Your task to perform on an android device: Go to Wikipedia Image 0: 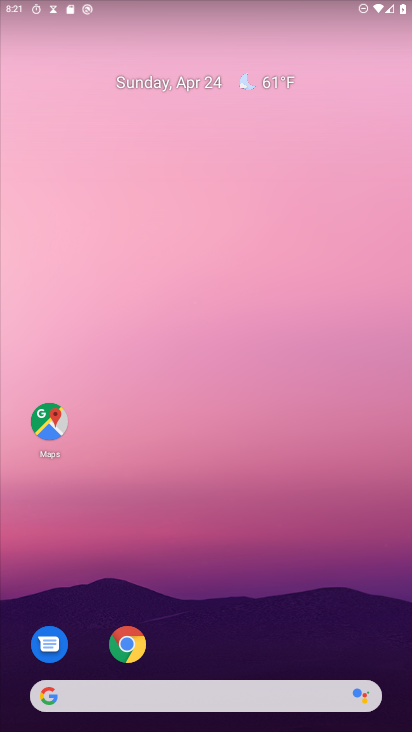
Step 0: drag from (245, 689) to (257, 282)
Your task to perform on an android device: Go to Wikipedia Image 1: 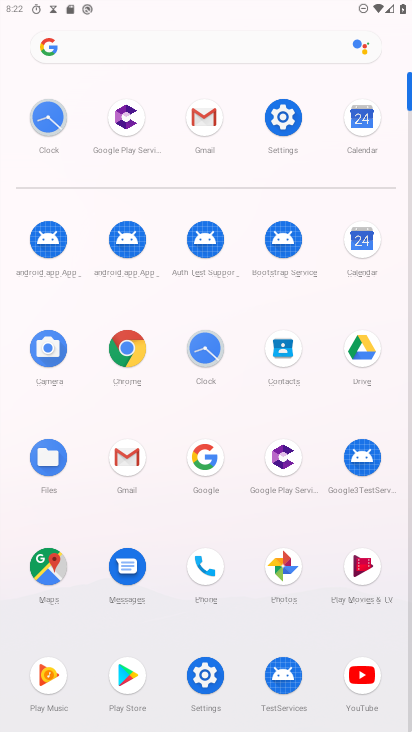
Step 1: click (129, 355)
Your task to perform on an android device: Go to Wikipedia Image 2: 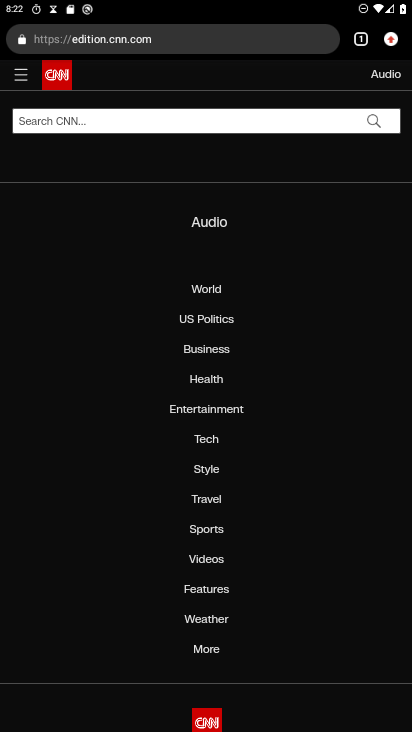
Step 2: click (211, 46)
Your task to perform on an android device: Go to Wikipedia Image 3: 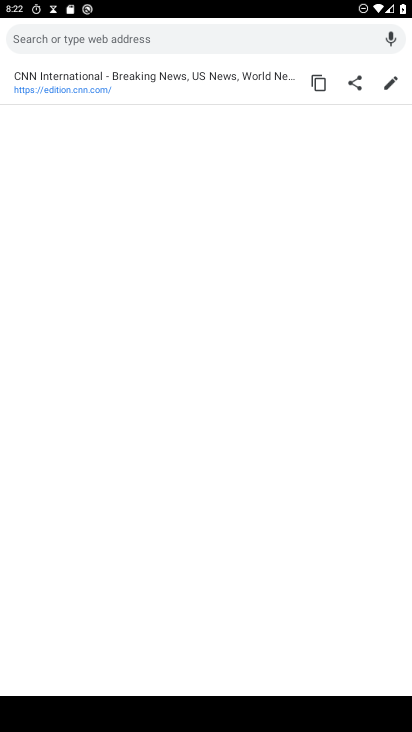
Step 3: type "wikipedia"
Your task to perform on an android device: Go to Wikipedia Image 4: 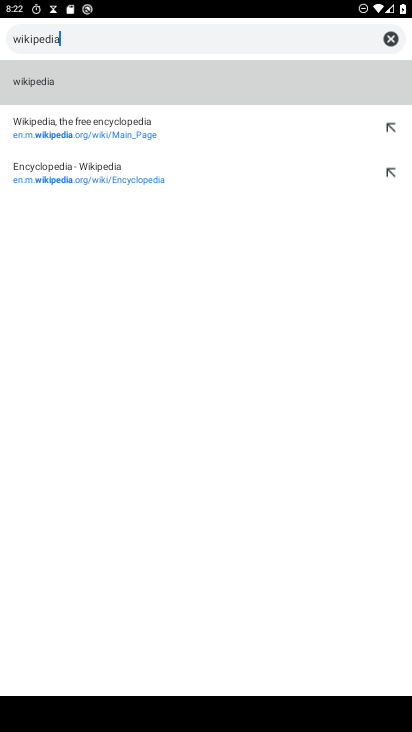
Step 4: click (116, 140)
Your task to perform on an android device: Go to Wikipedia Image 5: 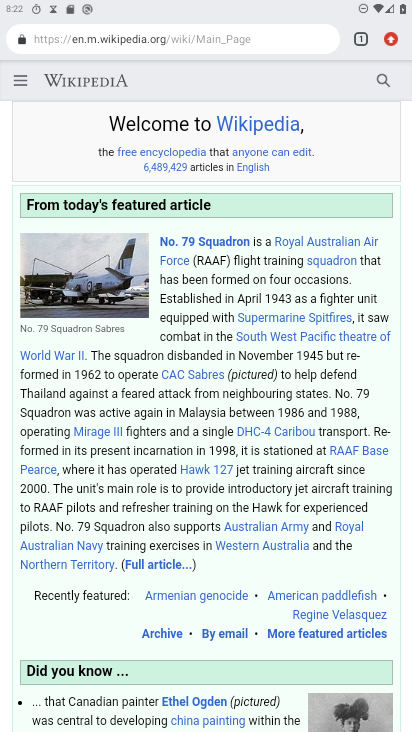
Step 5: task complete